Your task to perform on an android device: Open calendar and show me the fourth week of next month Image 0: 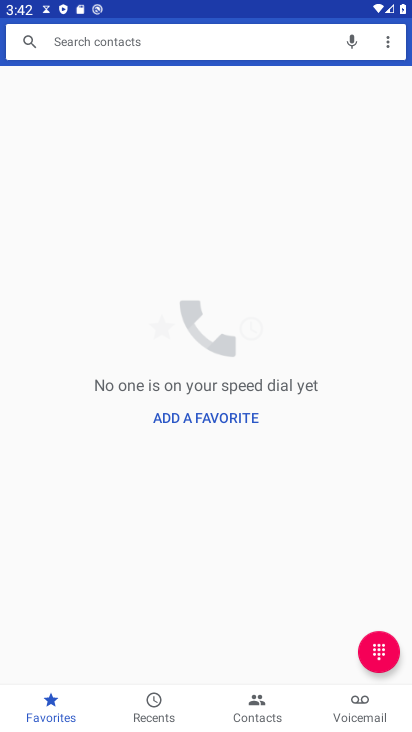
Step 0: press home button
Your task to perform on an android device: Open calendar and show me the fourth week of next month Image 1: 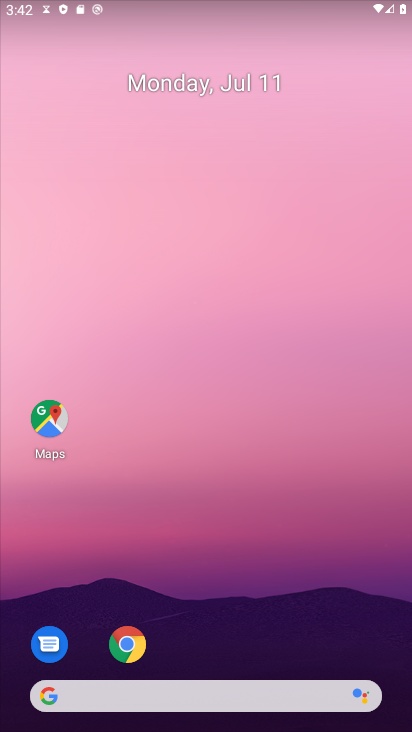
Step 1: drag from (200, 723) to (224, 248)
Your task to perform on an android device: Open calendar and show me the fourth week of next month Image 2: 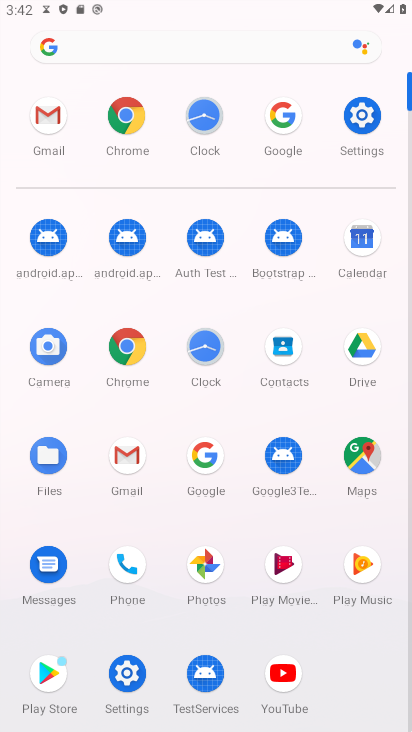
Step 2: click (362, 247)
Your task to perform on an android device: Open calendar and show me the fourth week of next month Image 3: 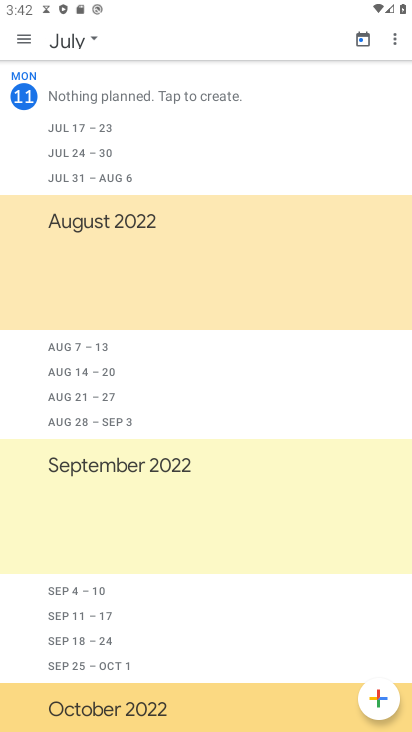
Step 3: click (85, 35)
Your task to perform on an android device: Open calendar and show me the fourth week of next month Image 4: 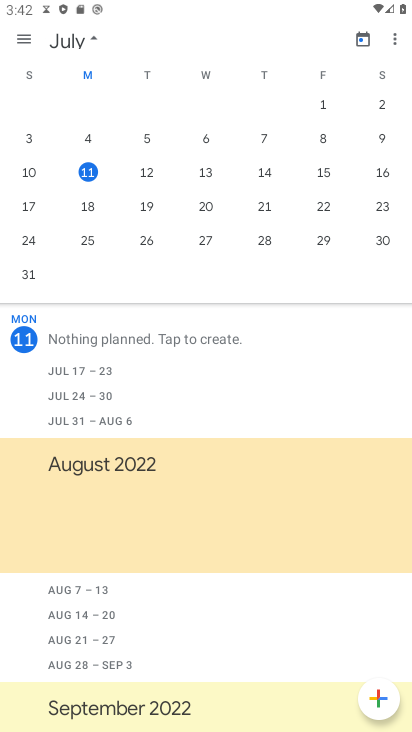
Step 4: drag from (347, 212) to (71, 212)
Your task to perform on an android device: Open calendar and show me the fourth week of next month Image 5: 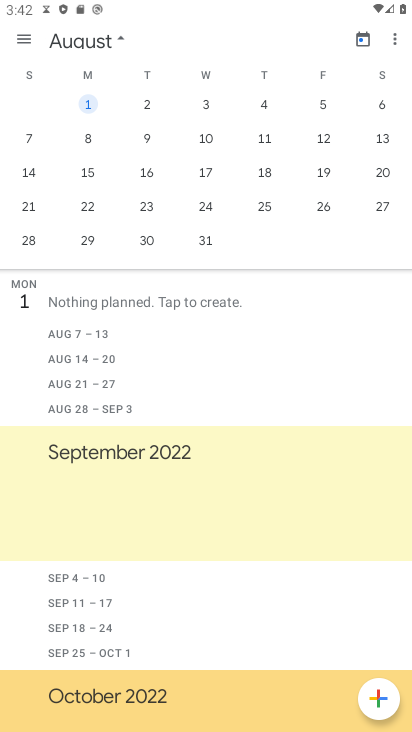
Step 5: click (83, 203)
Your task to perform on an android device: Open calendar and show me the fourth week of next month Image 6: 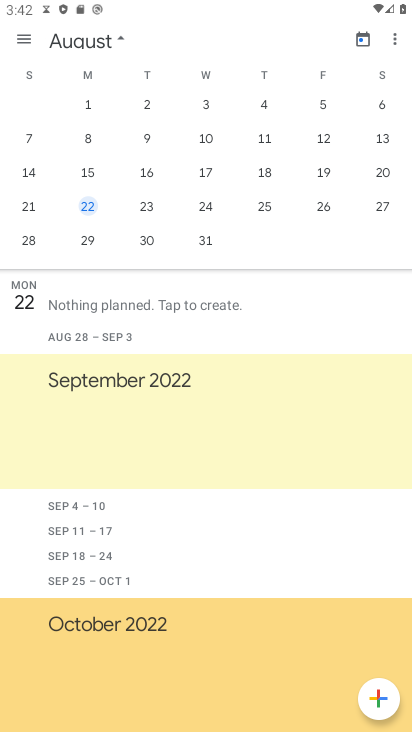
Step 6: click (23, 40)
Your task to perform on an android device: Open calendar and show me the fourth week of next month Image 7: 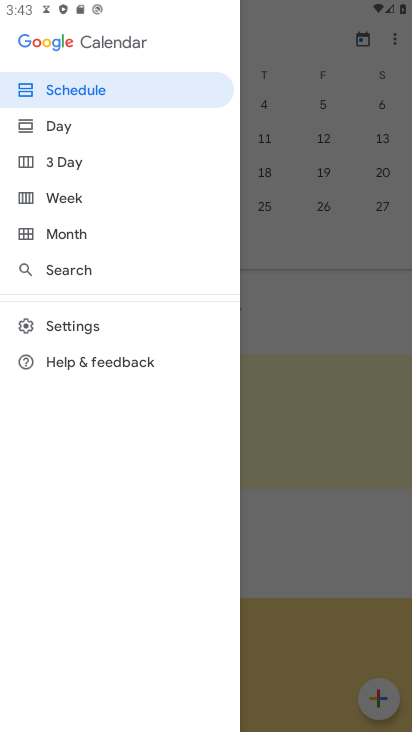
Step 7: click (67, 195)
Your task to perform on an android device: Open calendar and show me the fourth week of next month Image 8: 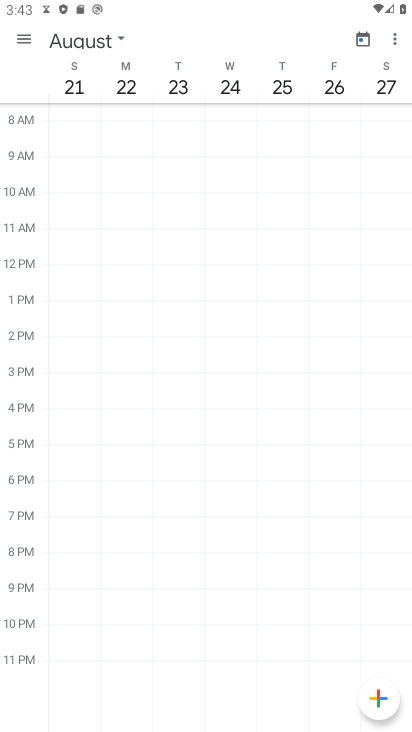
Step 8: task complete